Your task to perform on an android device: move an email to a new category in the gmail app Image 0: 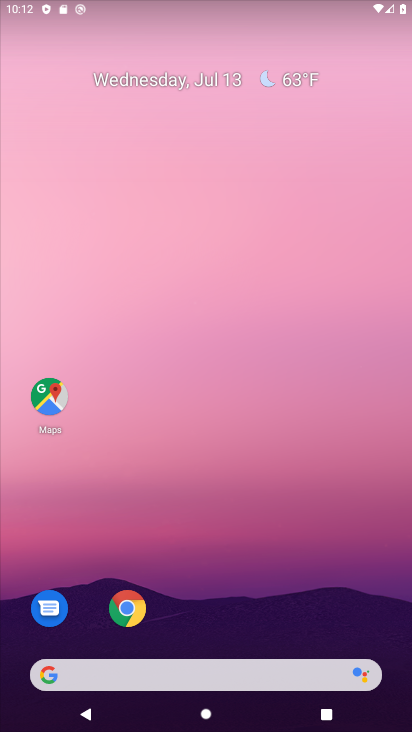
Step 0: drag from (303, 590) to (305, 100)
Your task to perform on an android device: move an email to a new category in the gmail app Image 1: 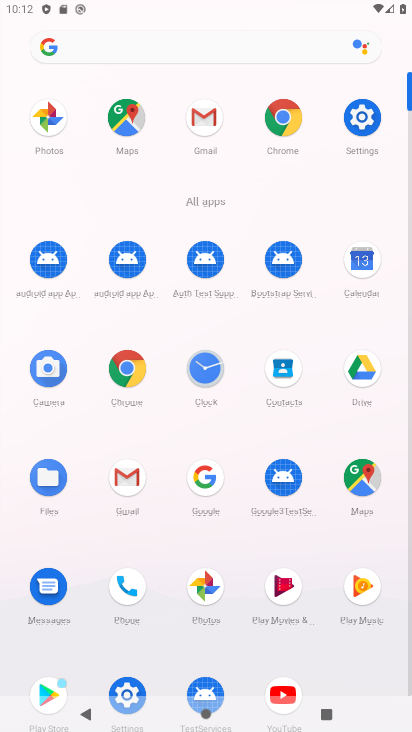
Step 1: click (133, 479)
Your task to perform on an android device: move an email to a new category in the gmail app Image 2: 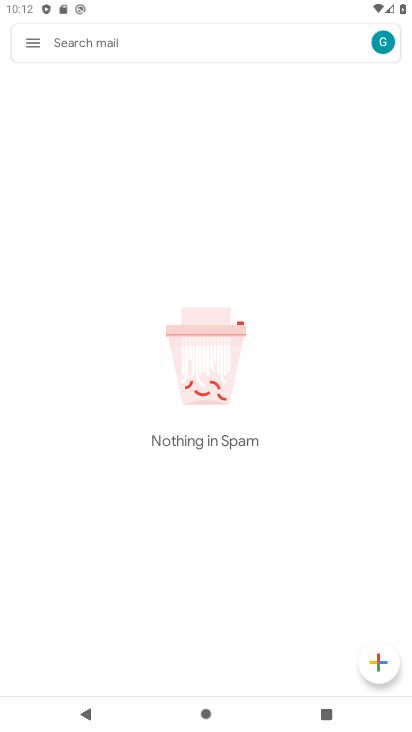
Step 2: click (28, 35)
Your task to perform on an android device: move an email to a new category in the gmail app Image 3: 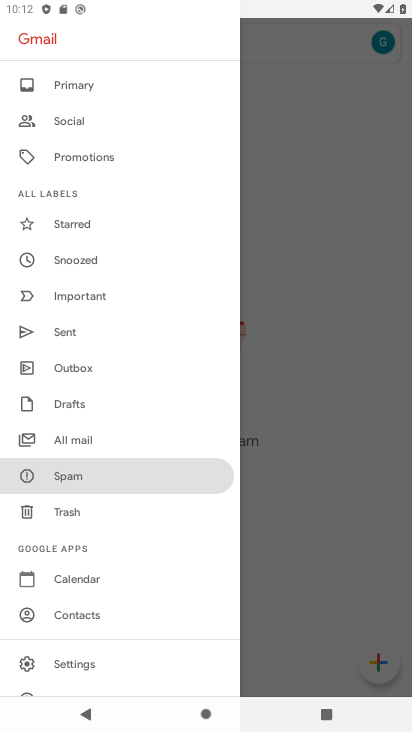
Step 3: click (93, 89)
Your task to perform on an android device: move an email to a new category in the gmail app Image 4: 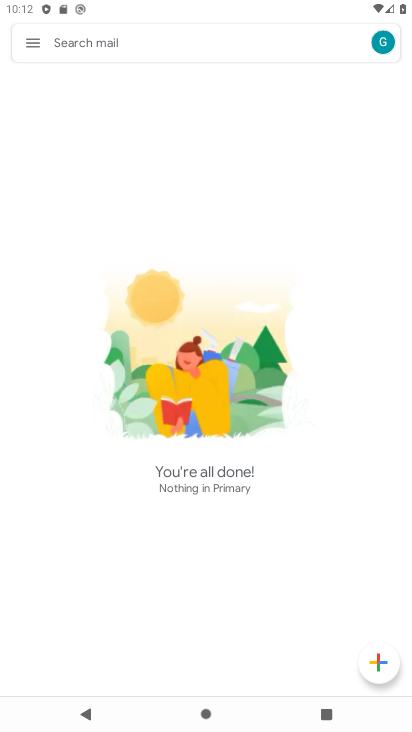
Step 4: task complete